Your task to perform on an android device: all mails in gmail Image 0: 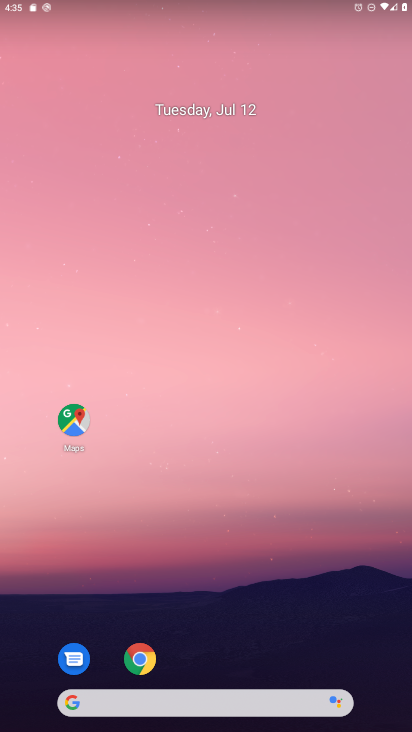
Step 0: click (275, 225)
Your task to perform on an android device: all mails in gmail Image 1: 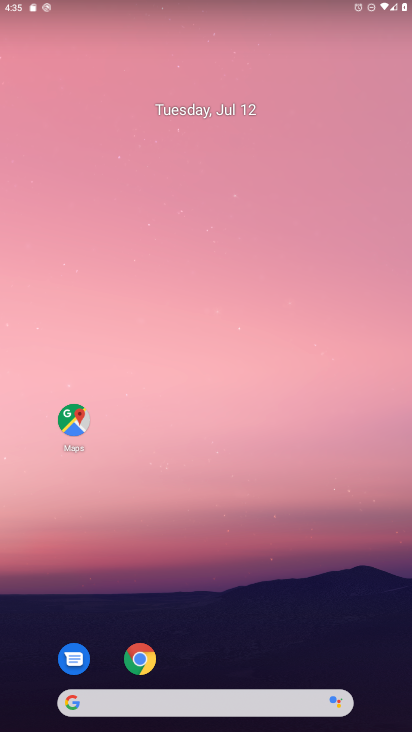
Step 1: click (48, 73)
Your task to perform on an android device: all mails in gmail Image 2: 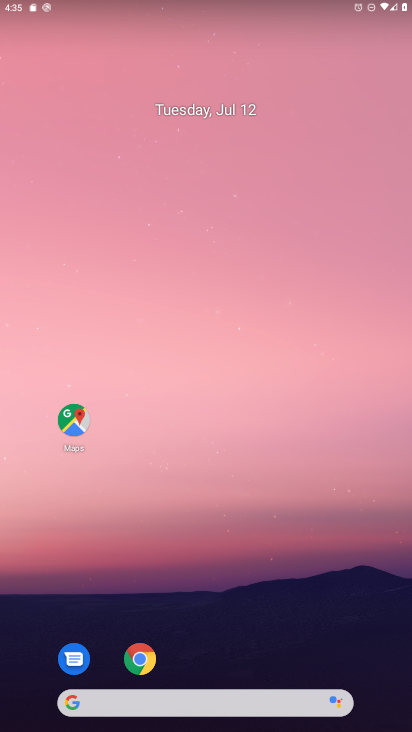
Step 2: drag from (250, 336) to (250, 143)
Your task to perform on an android device: all mails in gmail Image 3: 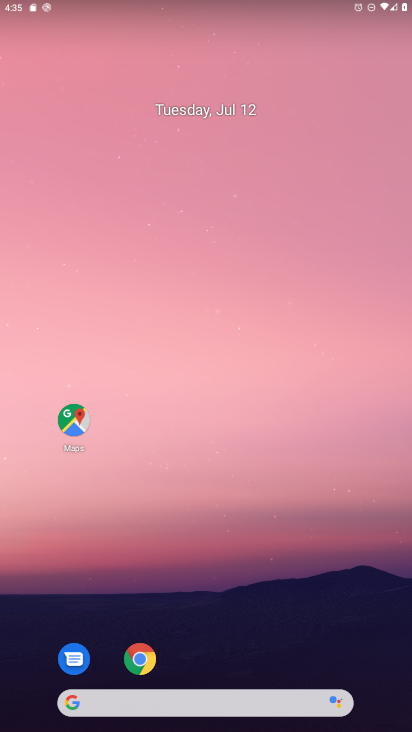
Step 3: drag from (197, 633) to (124, 158)
Your task to perform on an android device: all mails in gmail Image 4: 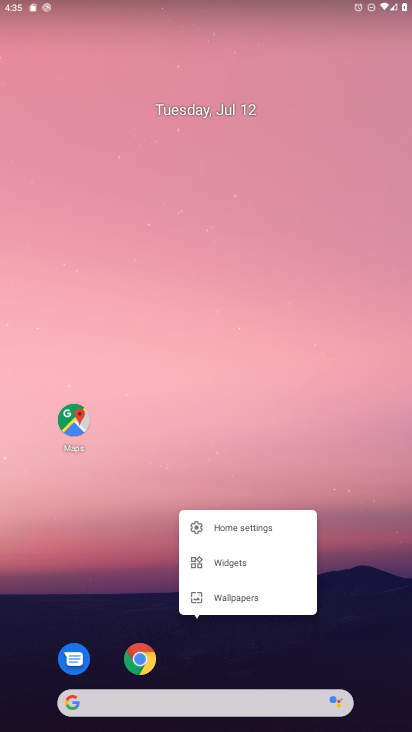
Step 4: click (208, 670)
Your task to perform on an android device: all mails in gmail Image 5: 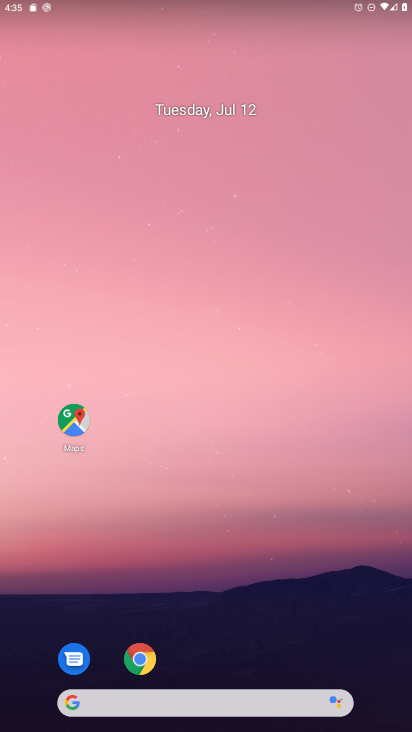
Step 5: drag from (206, 600) to (198, 60)
Your task to perform on an android device: all mails in gmail Image 6: 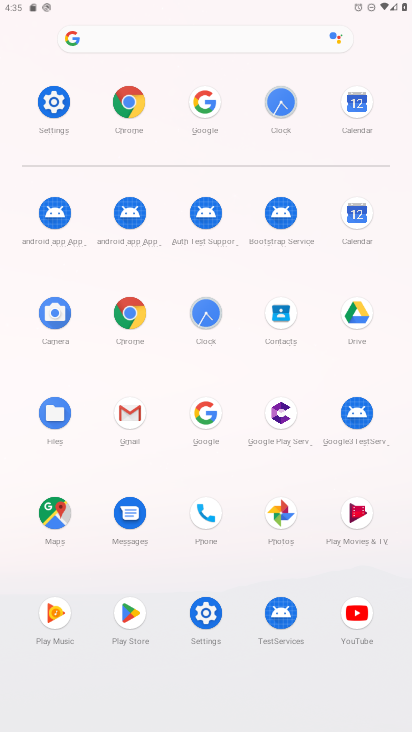
Step 6: click (131, 420)
Your task to perform on an android device: all mails in gmail Image 7: 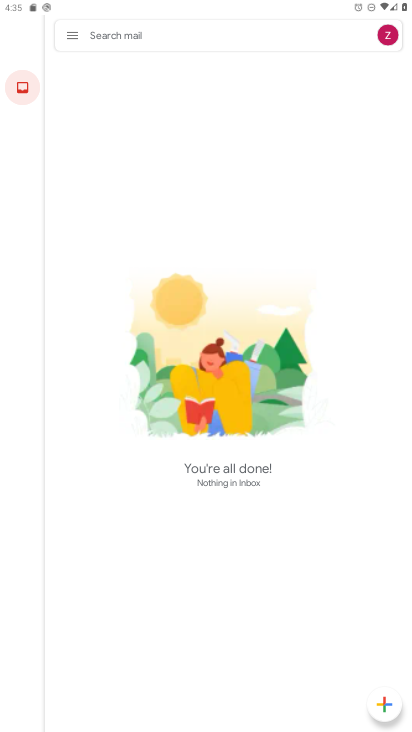
Step 7: click (69, 37)
Your task to perform on an android device: all mails in gmail Image 8: 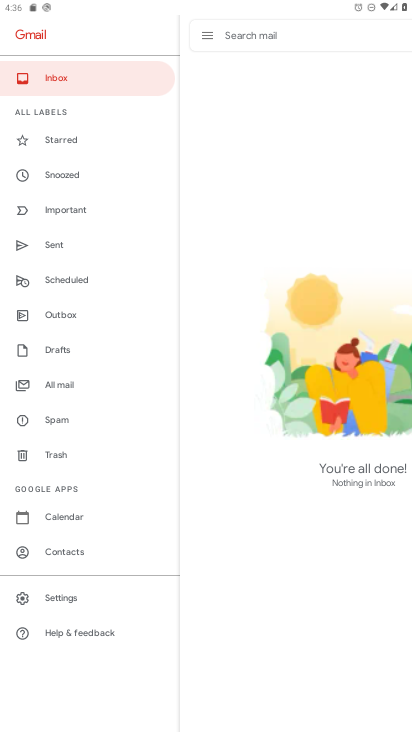
Step 8: click (79, 382)
Your task to perform on an android device: all mails in gmail Image 9: 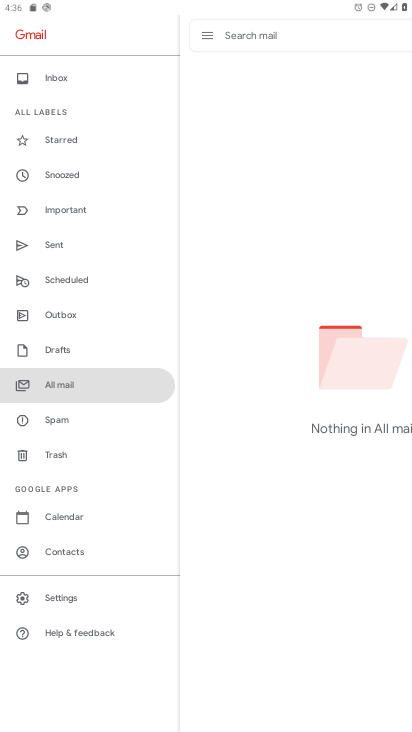
Step 9: task complete